Your task to perform on an android device: Go to privacy settings Image 0: 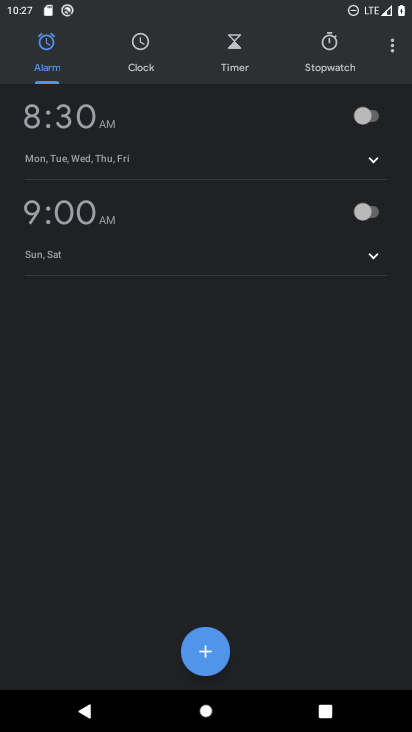
Step 0: press home button
Your task to perform on an android device: Go to privacy settings Image 1: 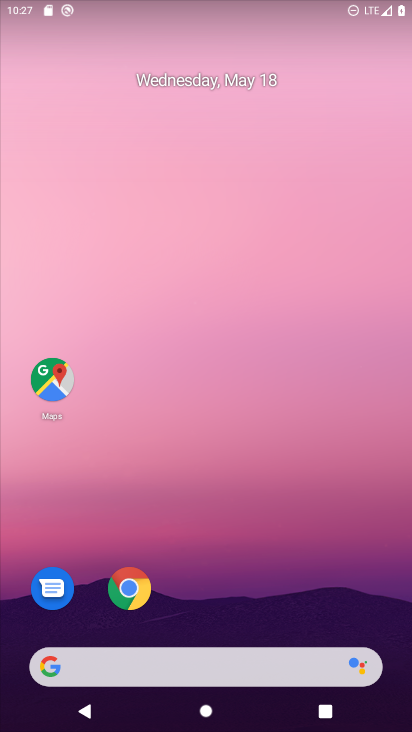
Step 1: drag from (315, 629) to (295, 5)
Your task to perform on an android device: Go to privacy settings Image 2: 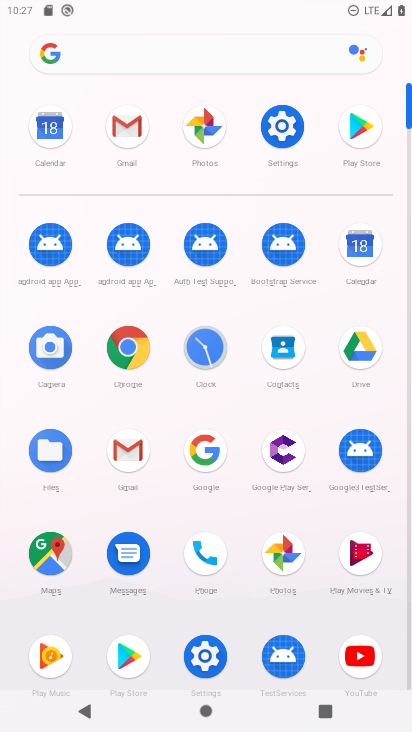
Step 2: click (287, 127)
Your task to perform on an android device: Go to privacy settings Image 3: 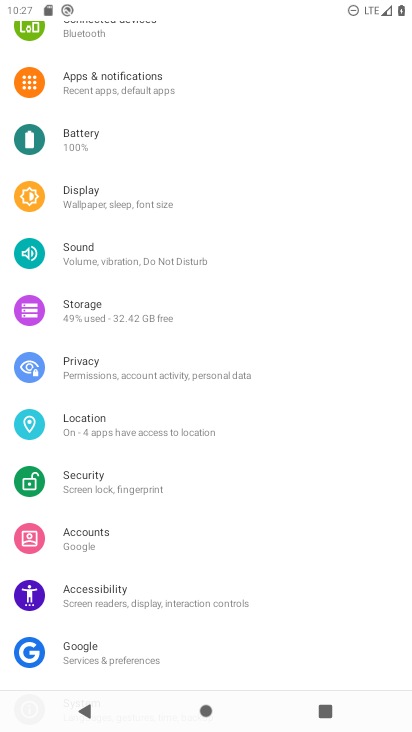
Step 3: click (81, 376)
Your task to perform on an android device: Go to privacy settings Image 4: 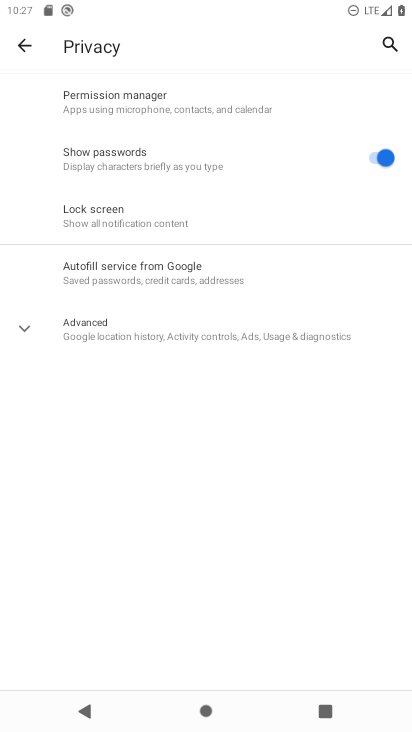
Step 4: task complete